Your task to perform on an android device: Turn on the flashlight Image 0: 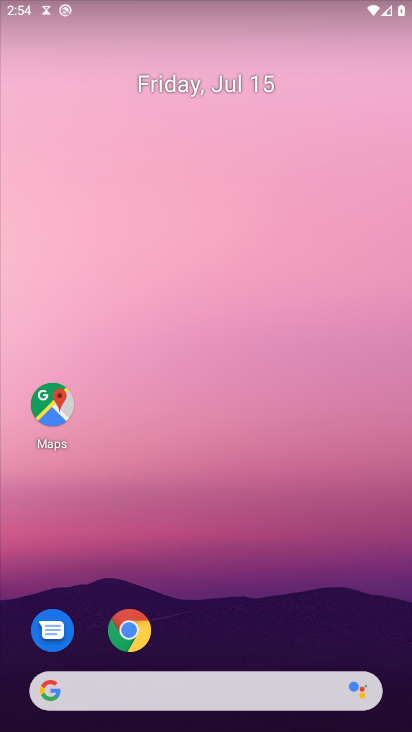
Step 0: drag from (218, 185) to (244, 619)
Your task to perform on an android device: Turn on the flashlight Image 1: 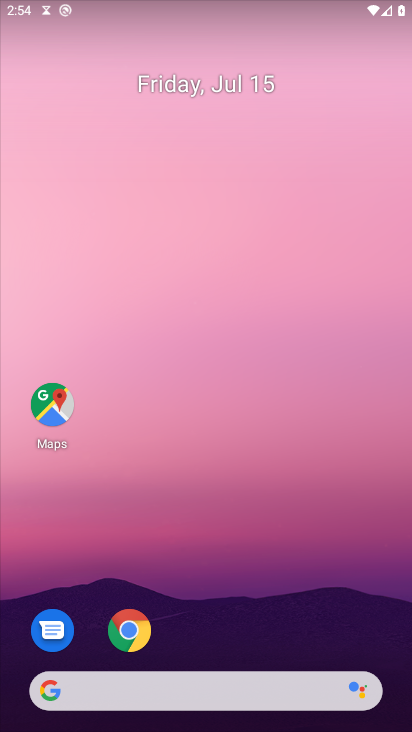
Step 1: task complete